Your task to perform on an android device: toggle data saver in the chrome app Image 0: 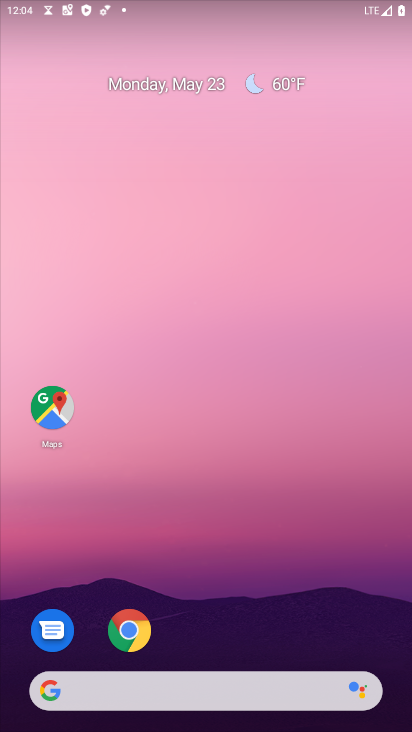
Step 0: click (127, 630)
Your task to perform on an android device: toggle data saver in the chrome app Image 1: 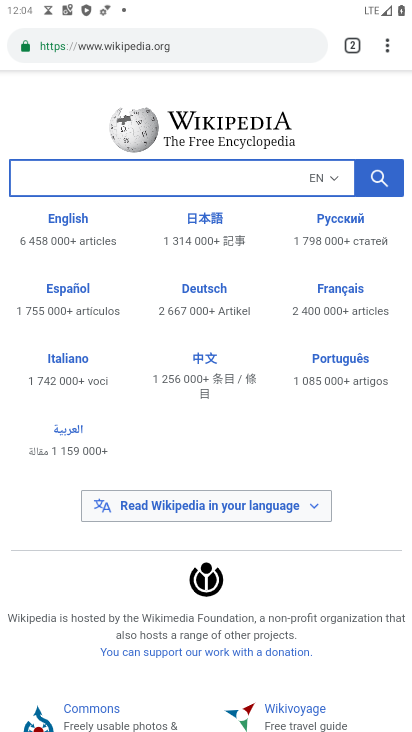
Step 1: click (388, 44)
Your task to perform on an android device: toggle data saver in the chrome app Image 2: 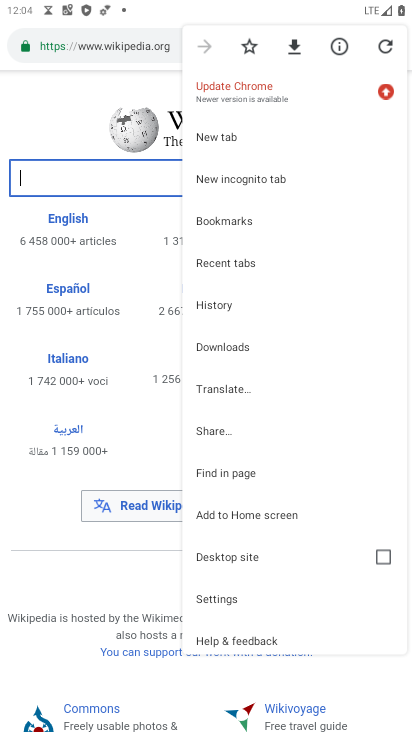
Step 2: click (228, 595)
Your task to perform on an android device: toggle data saver in the chrome app Image 3: 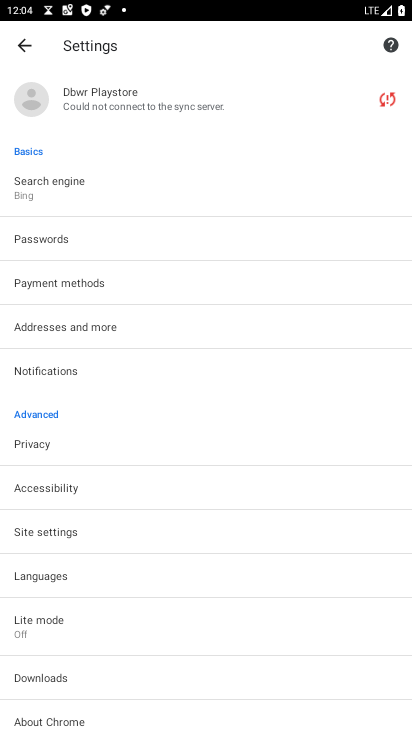
Step 3: click (62, 628)
Your task to perform on an android device: toggle data saver in the chrome app Image 4: 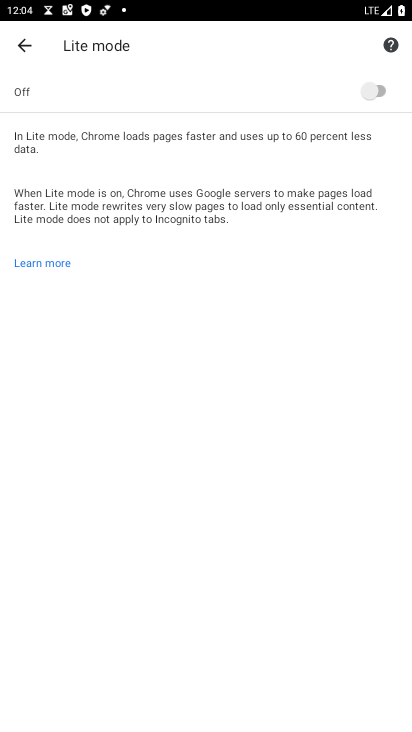
Step 4: click (374, 90)
Your task to perform on an android device: toggle data saver in the chrome app Image 5: 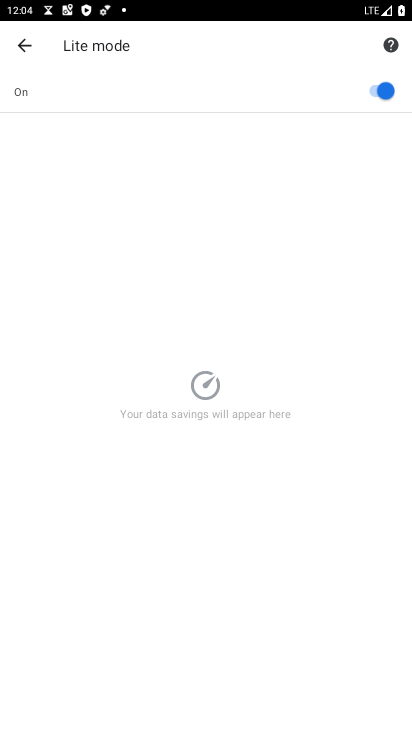
Step 5: task complete